Your task to perform on an android device: snooze an email in the gmail app Image 0: 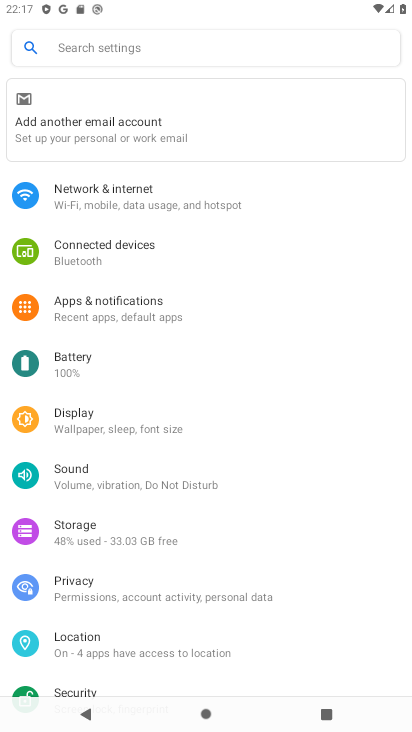
Step 0: press home button
Your task to perform on an android device: snooze an email in the gmail app Image 1: 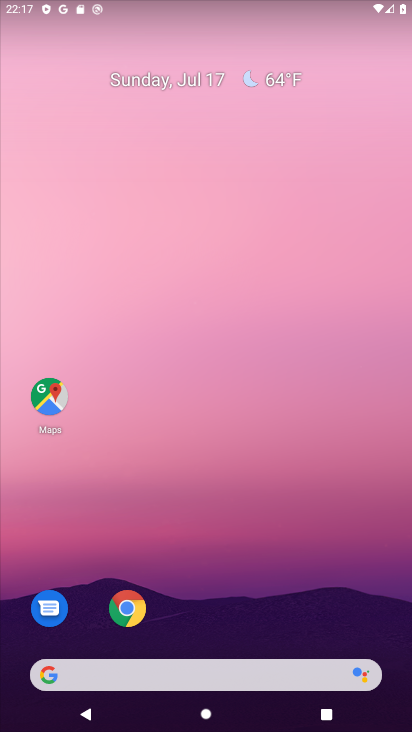
Step 1: drag from (244, 617) to (210, 226)
Your task to perform on an android device: snooze an email in the gmail app Image 2: 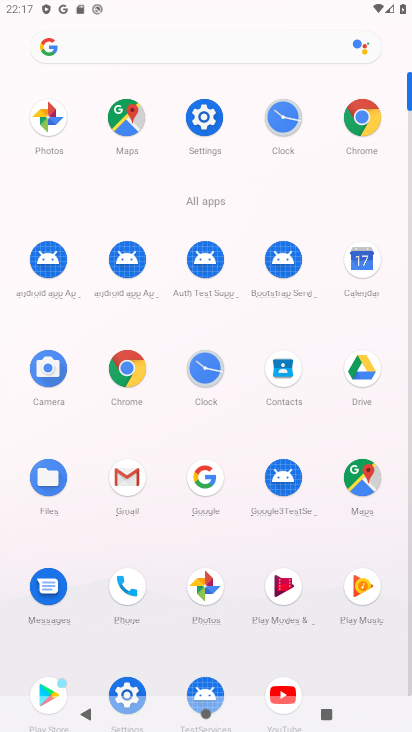
Step 2: click (128, 485)
Your task to perform on an android device: snooze an email in the gmail app Image 3: 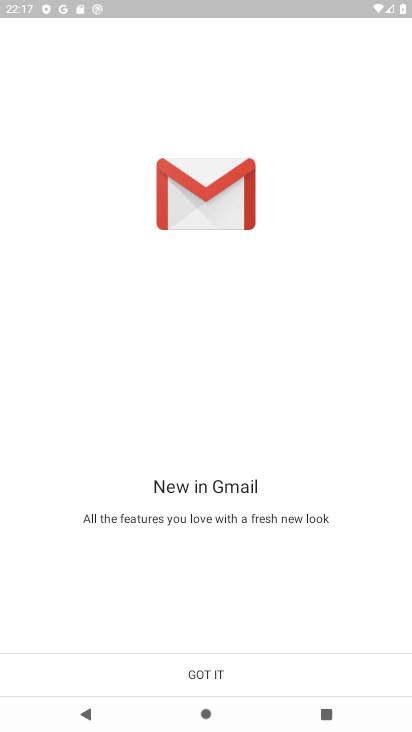
Step 3: click (211, 680)
Your task to perform on an android device: snooze an email in the gmail app Image 4: 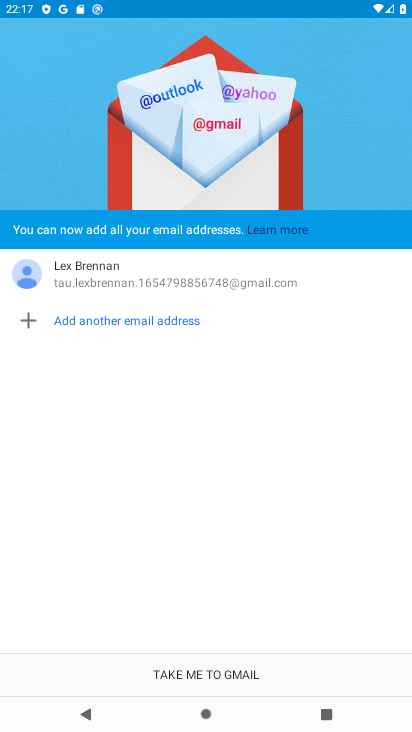
Step 4: click (211, 680)
Your task to perform on an android device: snooze an email in the gmail app Image 5: 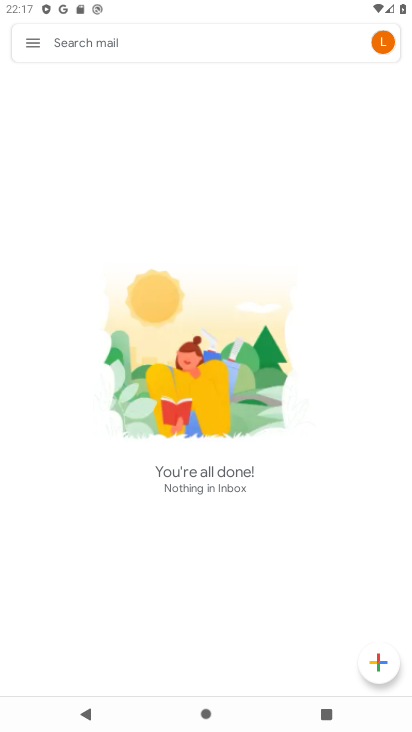
Step 5: click (37, 40)
Your task to perform on an android device: snooze an email in the gmail app Image 6: 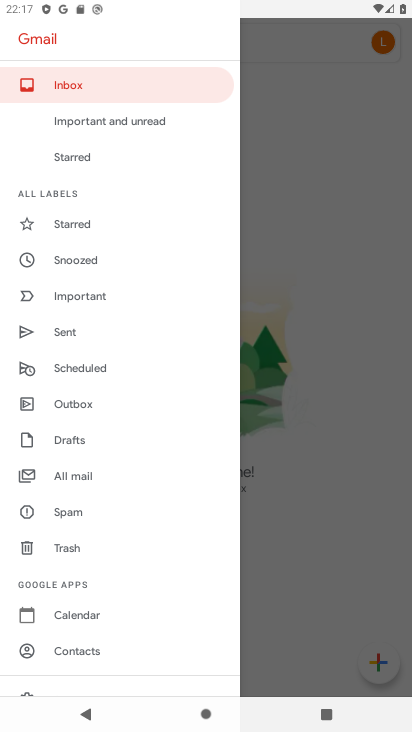
Step 6: drag from (86, 650) to (71, 439)
Your task to perform on an android device: snooze an email in the gmail app Image 7: 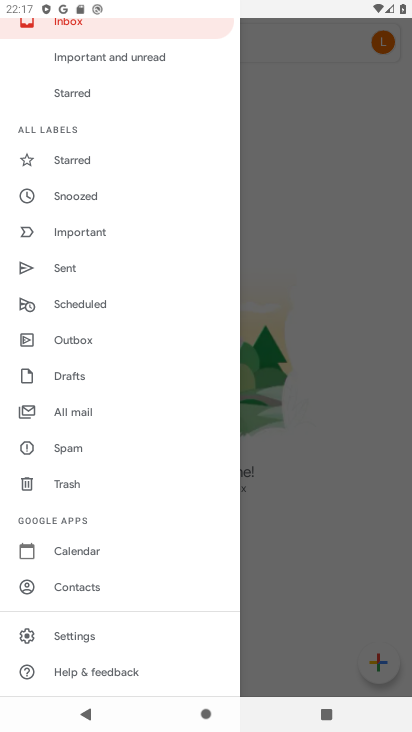
Step 7: click (107, 418)
Your task to perform on an android device: snooze an email in the gmail app Image 8: 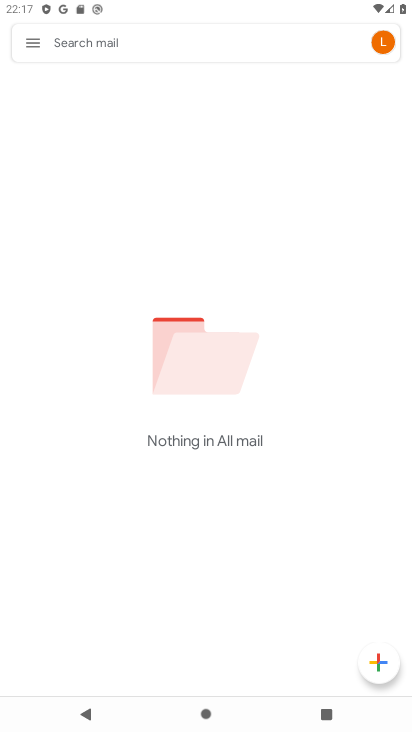
Step 8: task complete